Your task to perform on an android device: Open Google Chrome and open the bookmarks view Image 0: 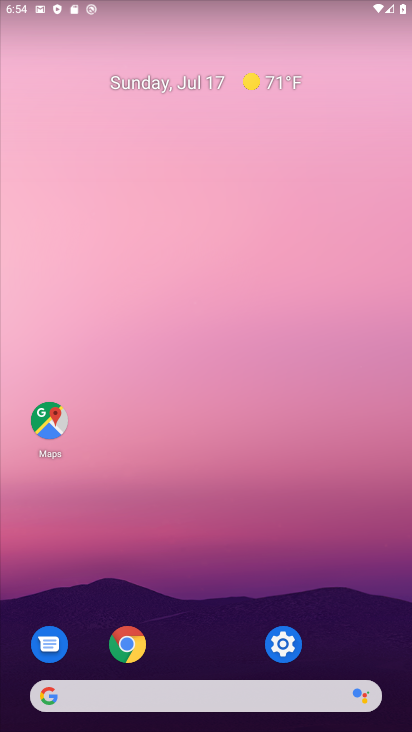
Step 0: click (138, 644)
Your task to perform on an android device: Open Google Chrome and open the bookmarks view Image 1: 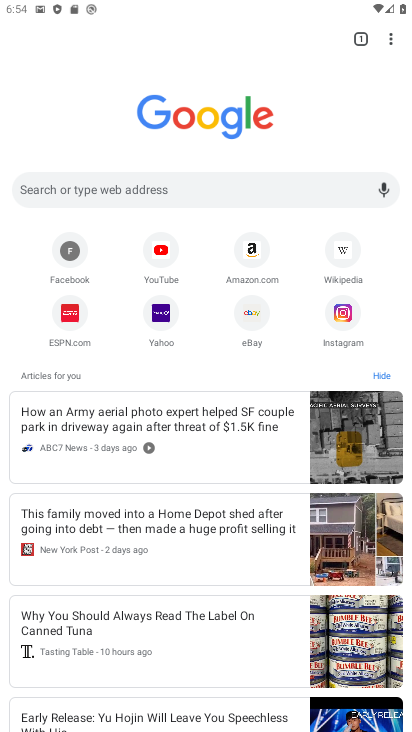
Step 1: click (392, 35)
Your task to perform on an android device: Open Google Chrome and open the bookmarks view Image 2: 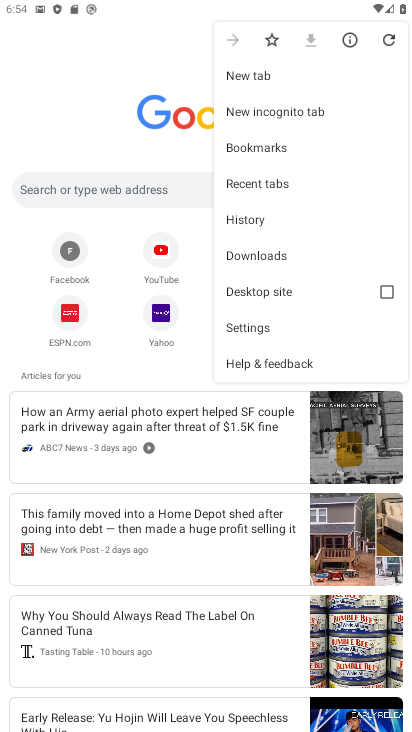
Step 2: click (268, 148)
Your task to perform on an android device: Open Google Chrome and open the bookmarks view Image 3: 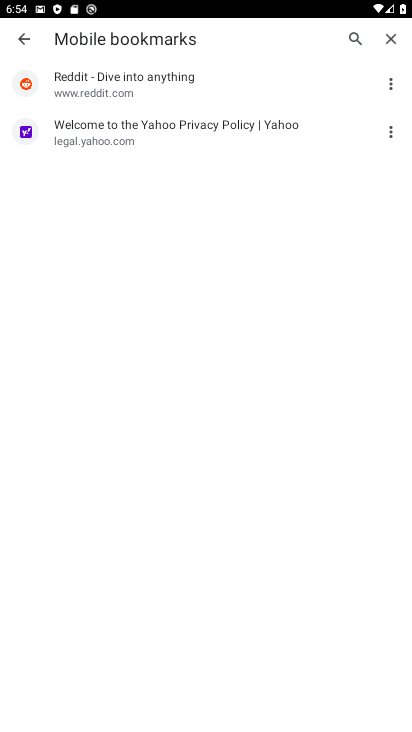
Step 3: task complete